Your task to perform on an android device: toggle improve location accuracy Image 0: 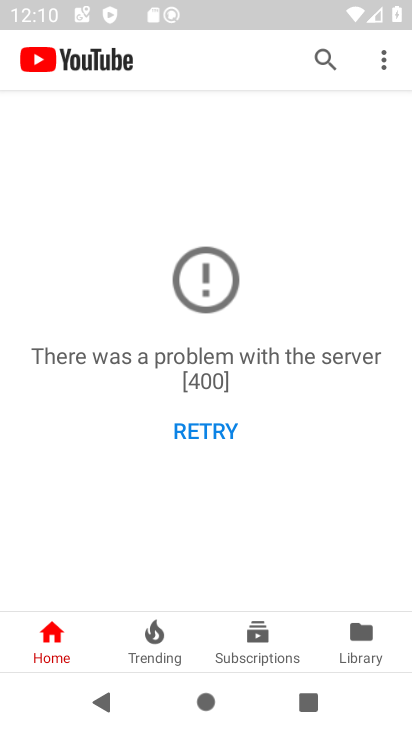
Step 0: press home button
Your task to perform on an android device: toggle improve location accuracy Image 1: 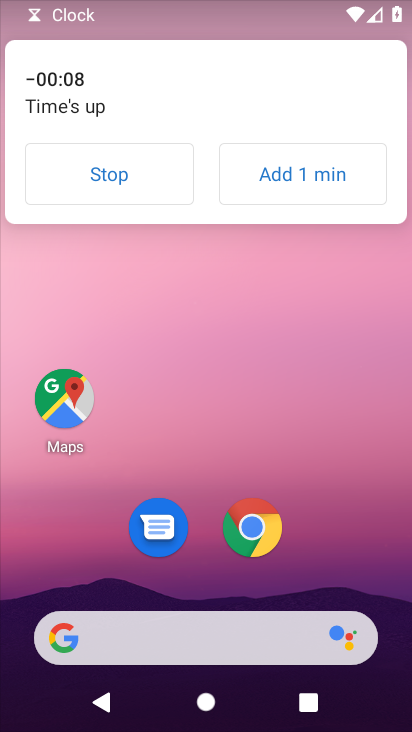
Step 1: press home button
Your task to perform on an android device: toggle improve location accuracy Image 2: 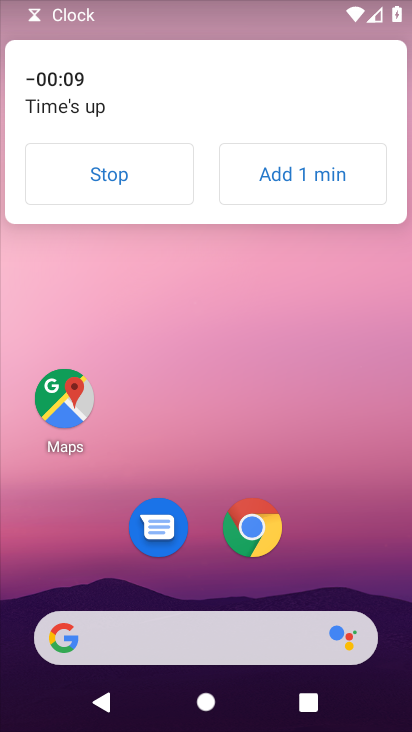
Step 2: click (146, 182)
Your task to perform on an android device: toggle improve location accuracy Image 3: 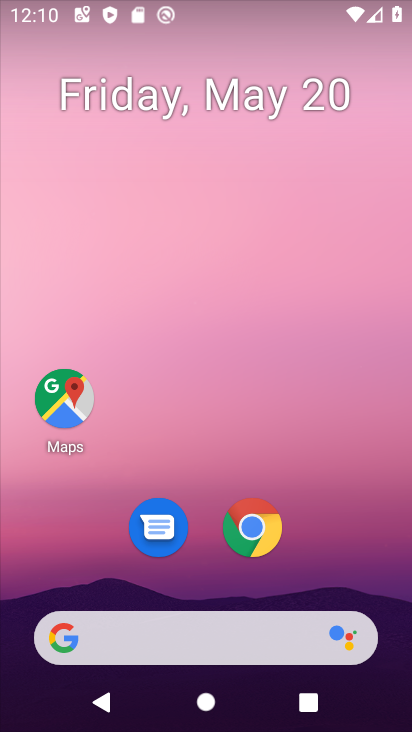
Step 3: drag from (329, 446) to (332, 35)
Your task to perform on an android device: toggle improve location accuracy Image 4: 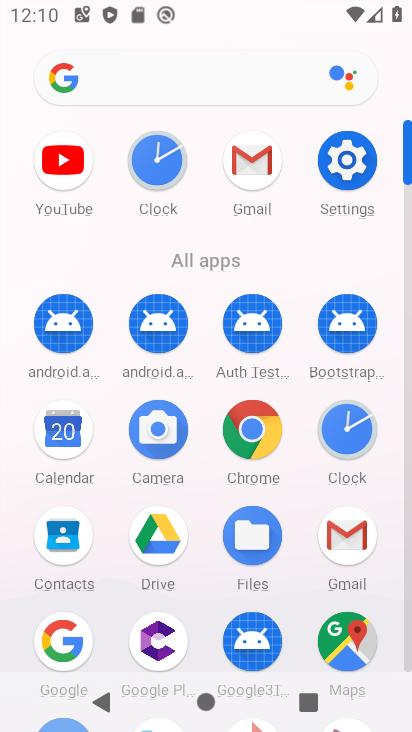
Step 4: click (348, 173)
Your task to perform on an android device: toggle improve location accuracy Image 5: 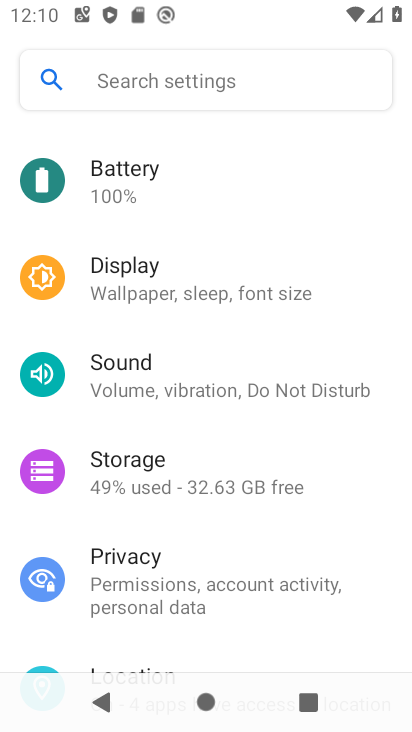
Step 5: drag from (243, 540) to (227, 71)
Your task to perform on an android device: toggle improve location accuracy Image 6: 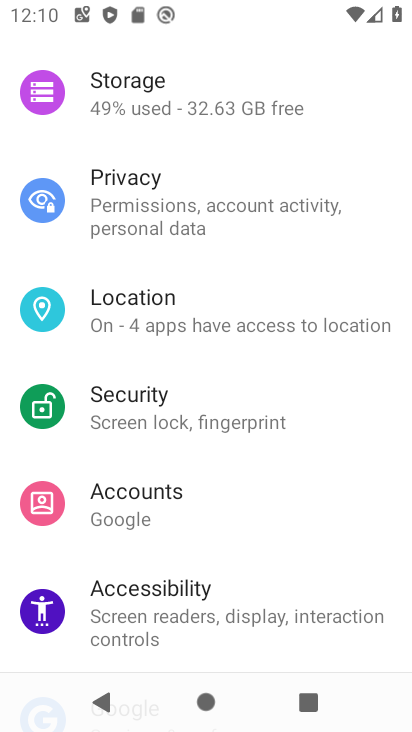
Step 6: drag from (269, 456) to (261, 171)
Your task to perform on an android device: toggle improve location accuracy Image 7: 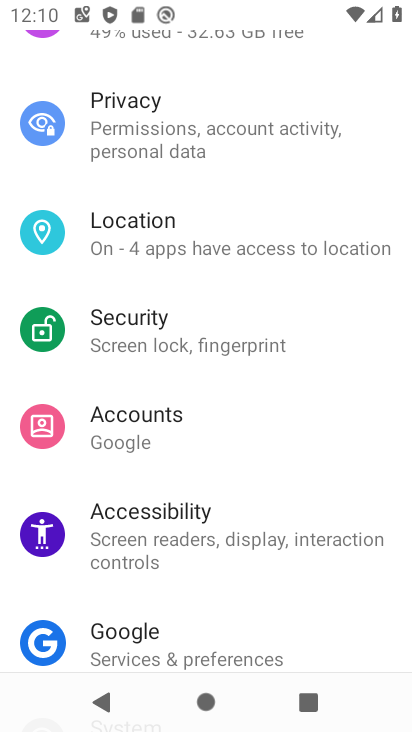
Step 7: click (149, 237)
Your task to perform on an android device: toggle improve location accuracy Image 8: 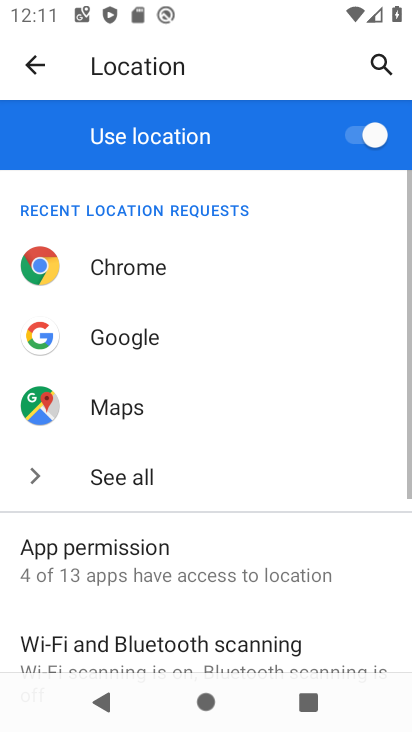
Step 8: drag from (136, 575) to (182, 169)
Your task to perform on an android device: toggle improve location accuracy Image 9: 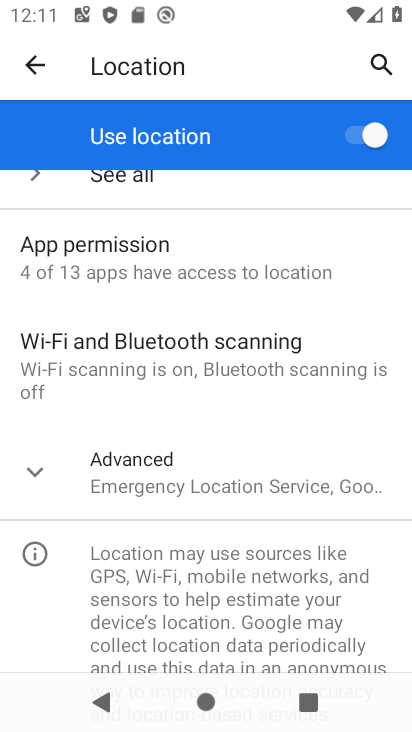
Step 9: click (152, 474)
Your task to perform on an android device: toggle improve location accuracy Image 10: 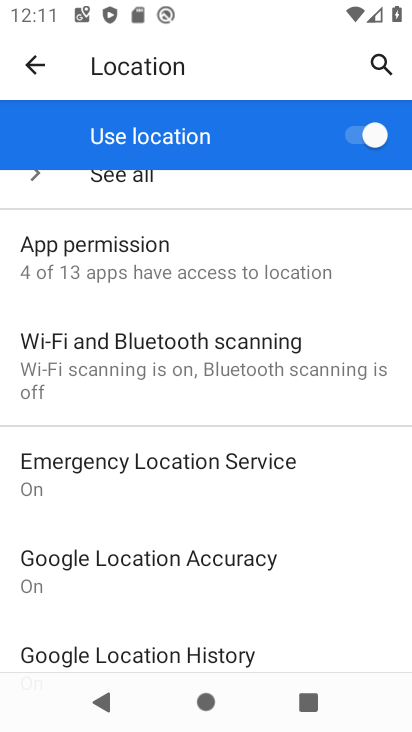
Step 10: click (161, 560)
Your task to perform on an android device: toggle improve location accuracy Image 11: 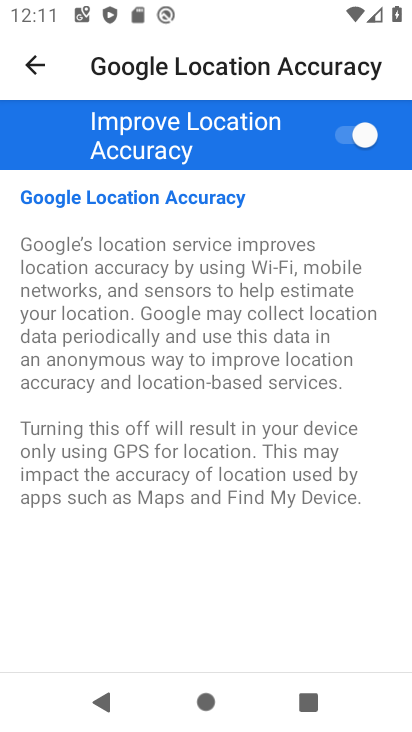
Step 11: click (344, 138)
Your task to perform on an android device: toggle improve location accuracy Image 12: 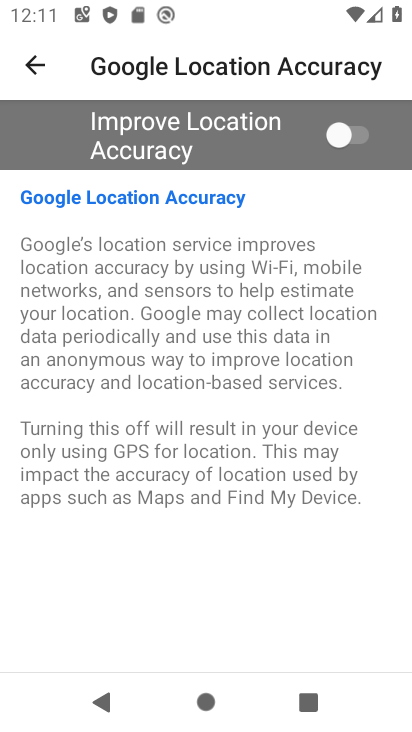
Step 12: task complete